Your task to perform on an android device: check google app version Image 0: 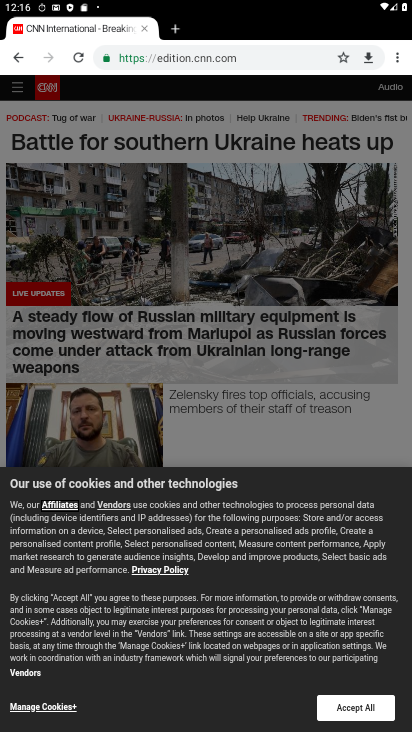
Step 0: press home button
Your task to perform on an android device: check google app version Image 1: 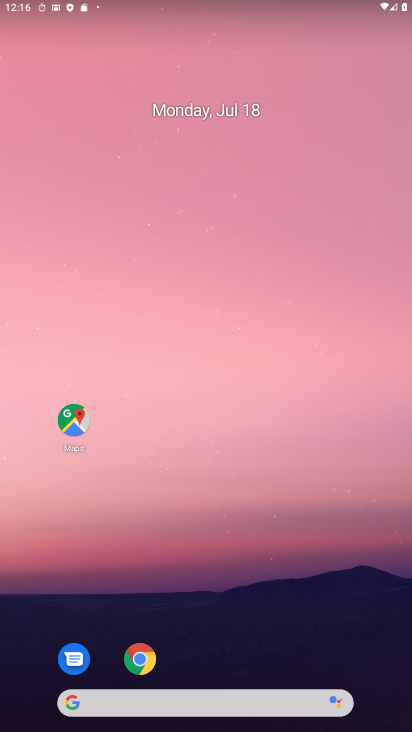
Step 1: click (72, 702)
Your task to perform on an android device: check google app version Image 2: 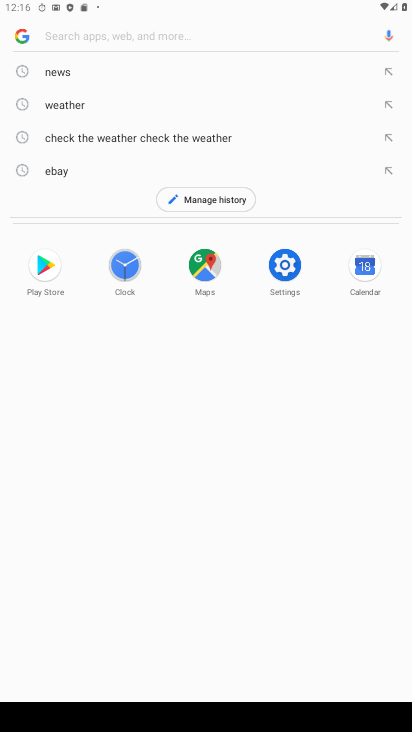
Step 2: click (25, 32)
Your task to perform on an android device: check google app version Image 3: 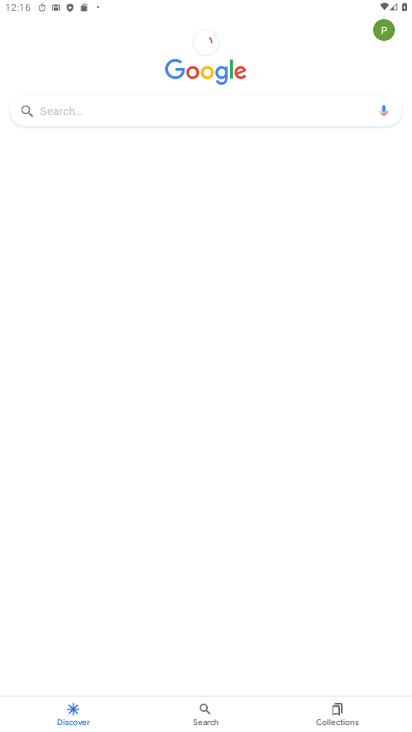
Step 3: click (380, 29)
Your task to perform on an android device: check google app version Image 4: 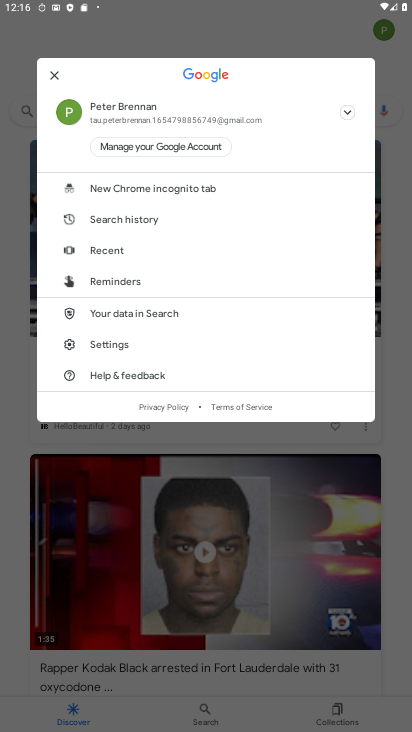
Step 4: click (109, 348)
Your task to perform on an android device: check google app version Image 5: 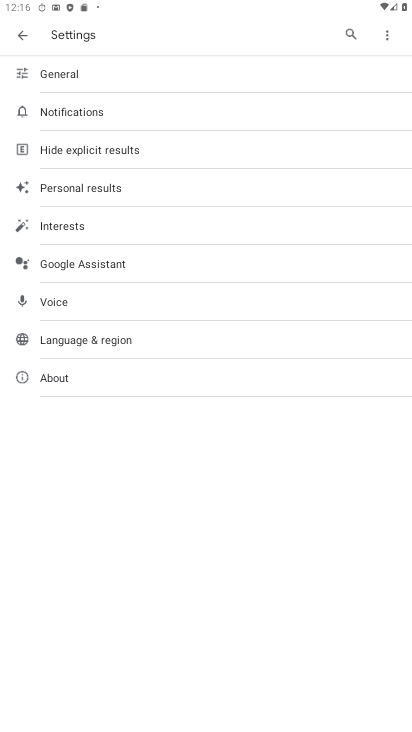
Step 5: click (54, 373)
Your task to perform on an android device: check google app version Image 6: 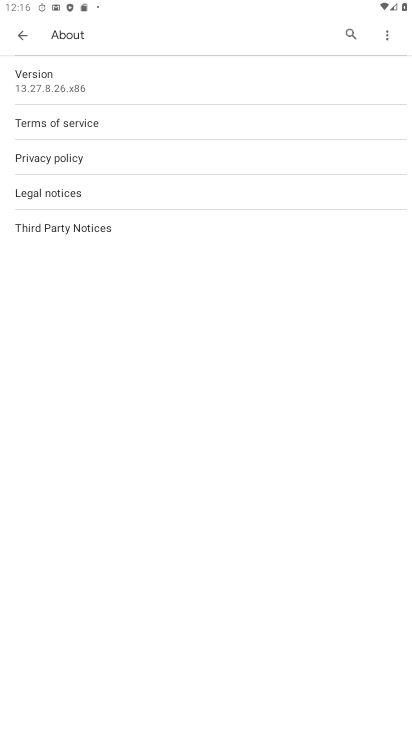
Step 6: task complete